Your task to perform on an android device: allow cookies in the chrome app Image 0: 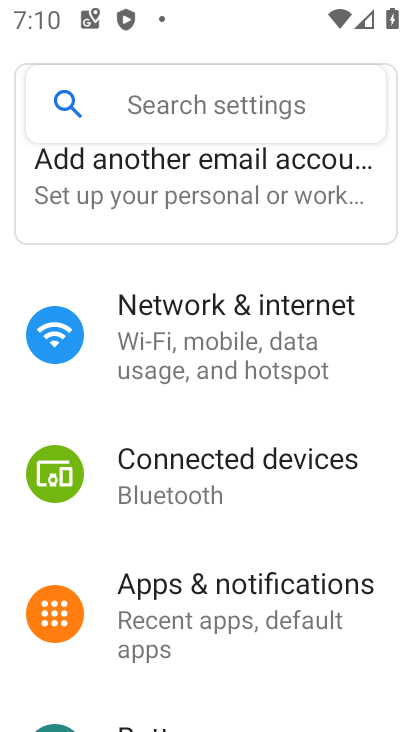
Step 0: press home button
Your task to perform on an android device: allow cookies in the chrome app Image 1: 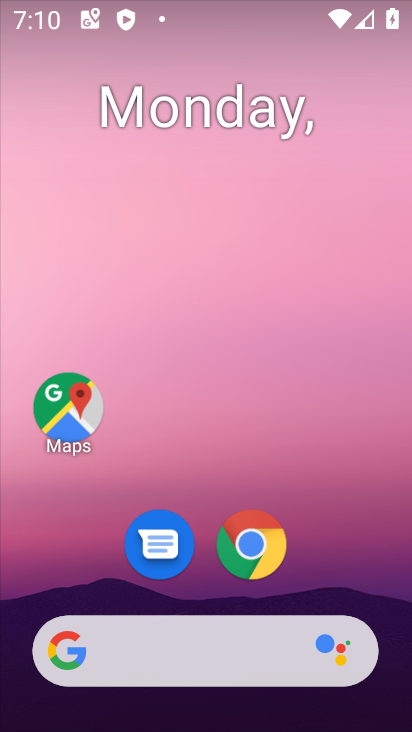
Step 1: click (247, 557)
Your task to perform on an android device: allow cookies in the chrome app Image 2: 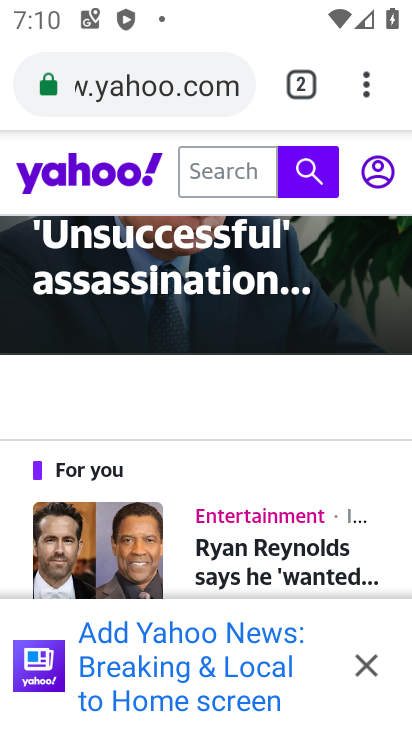
Step 2: click (370, 78)
Your task to perform on an android device: allow cookies in the chrome app Image 3: 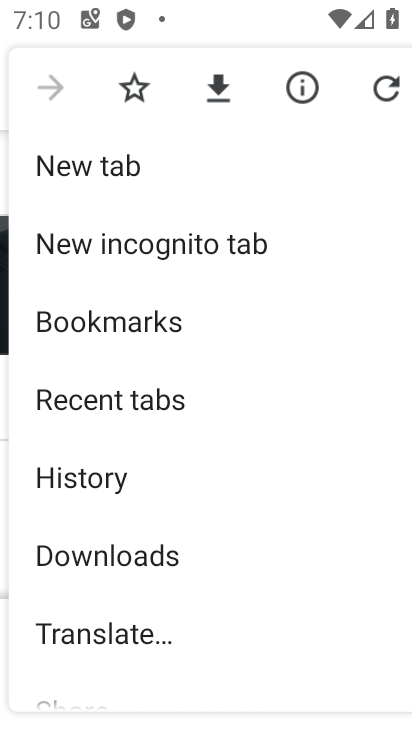
Step 3: drag from (240, 562) to (199, 278)
Your task to perform on an android device: allow cookies in the chrome app Image 4: 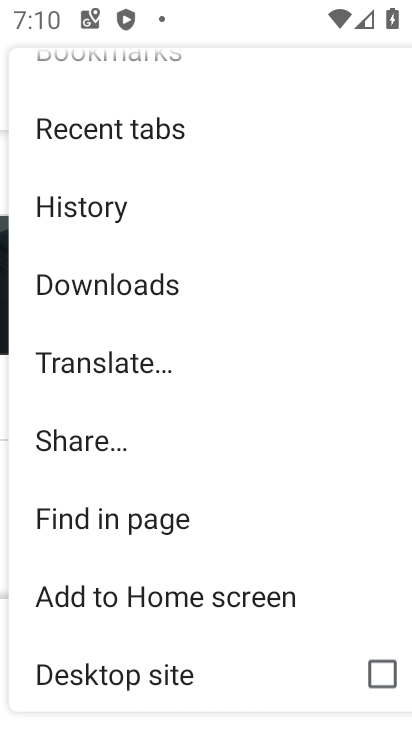
Step 4: drag from (209, 452) to (196, 179)
Your task to perform on an android device: allow cookies in the chrome app Image 5: 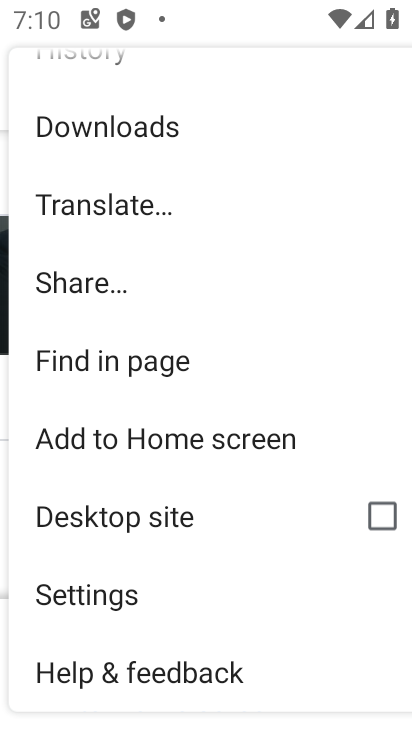
Step 5: click (103, 599)
Your task to perform on an android device: allow cookies in the chrome app Image 6: 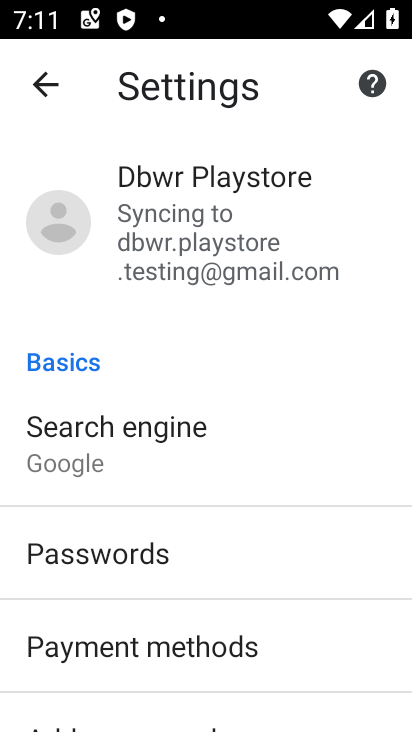
Step 6: drag from (224, 494) to (200, 181)
Your task to perform on an android device: allow cookies in the chrome app Image 7: 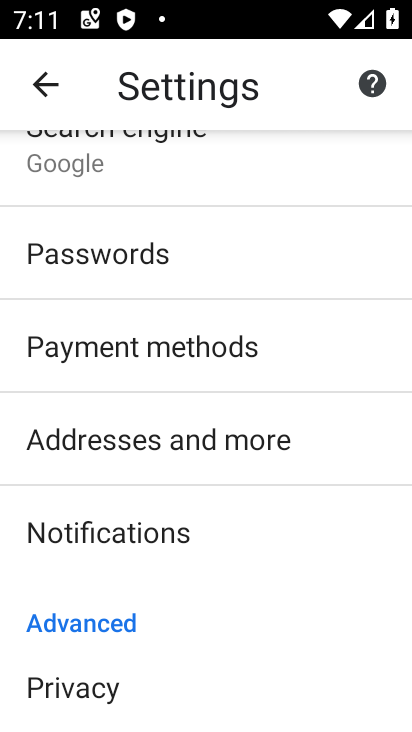
Step 7: drag from (227, 563) to (192, 313)
Your task to perform on an android device: allow cookies in the chrome app Image 8: 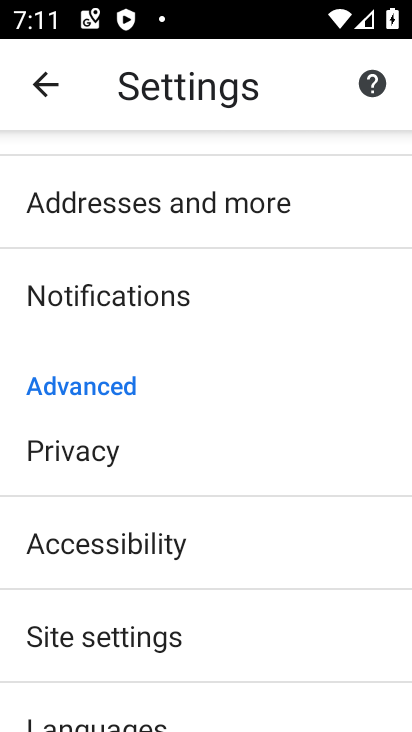
Step 8: click (123, 633)
Your task to perform on an android device: allow cookies in the chrome app Image 9: 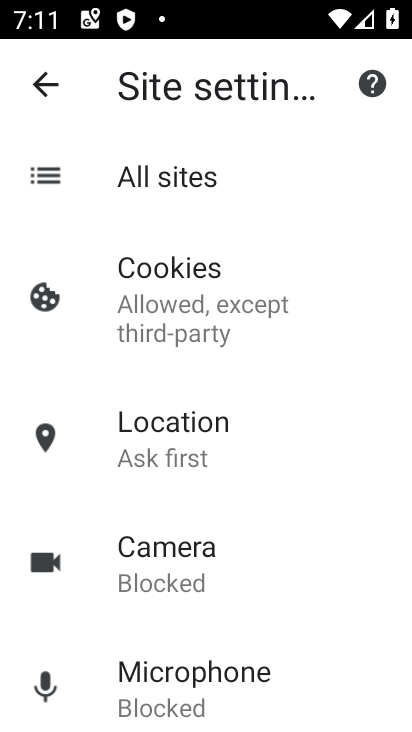
Step 9: click (168, 278)
Your task to perform on an android device: allow cookies in the chrome app Image 10: 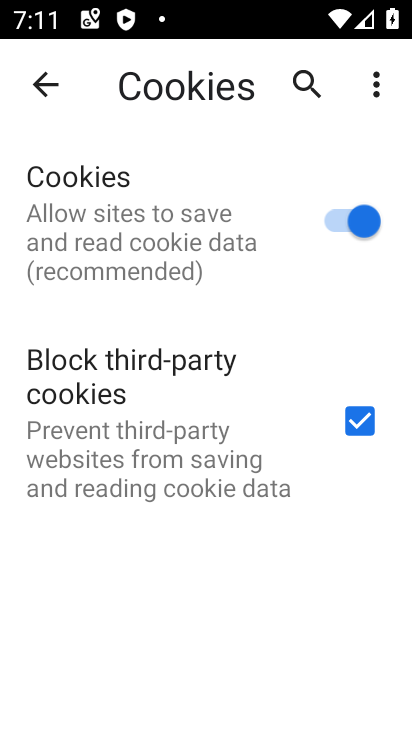
Step 10: task complete